Your task to perform on an android device: Turn off the flashlight Image 0: 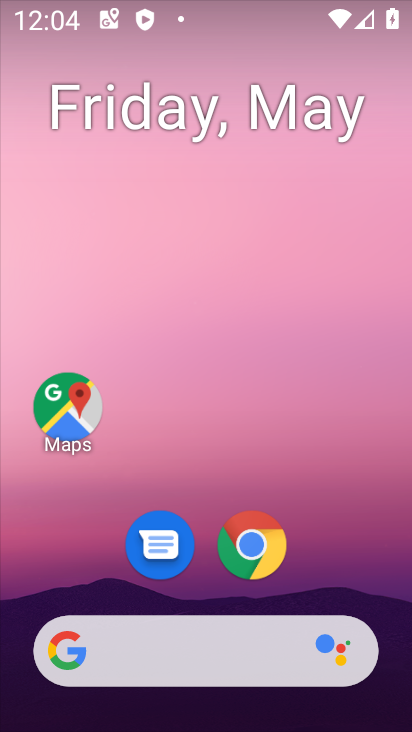
Step 0: drag from (330, 528) to (321, 172)
Your task to perform on an android device: Turn off the flashlight Image 1: 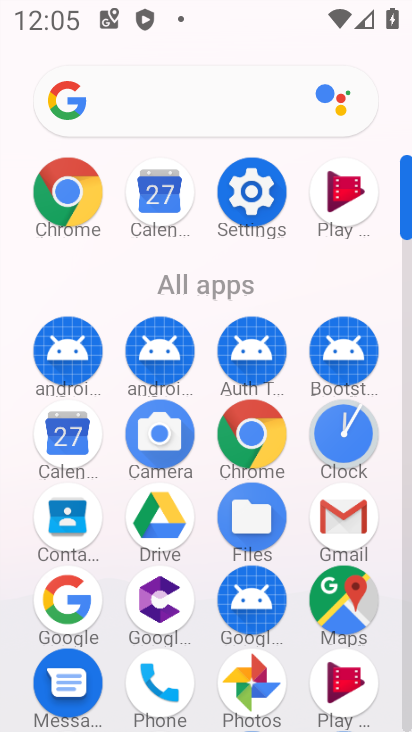
Step 1: click (252, 186)
Your task to perform on an android device: Turn off the flashlight Image 2: 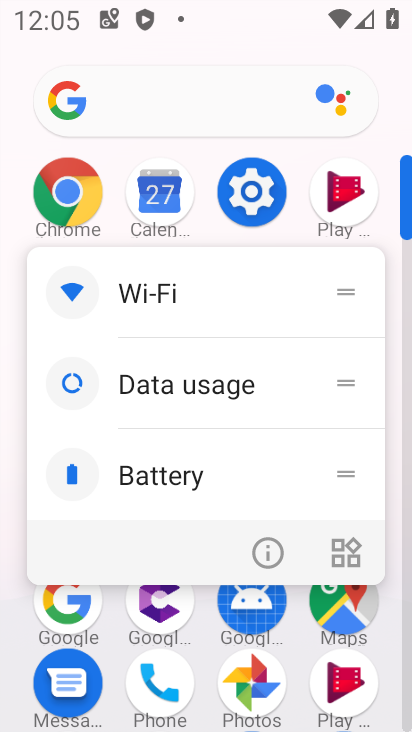
Step 2: click (252, 186)
Your task to perform on an android device: Turn off the flashlight Image 3: 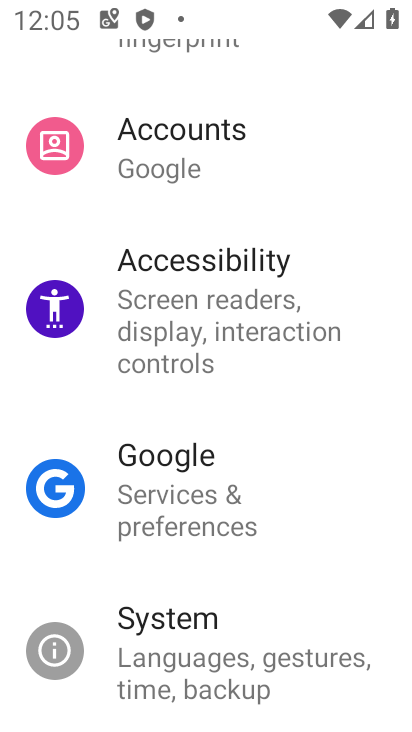
Step 3: task complete